Your task to perform on an android device: find photos in the google photos app Image 0: 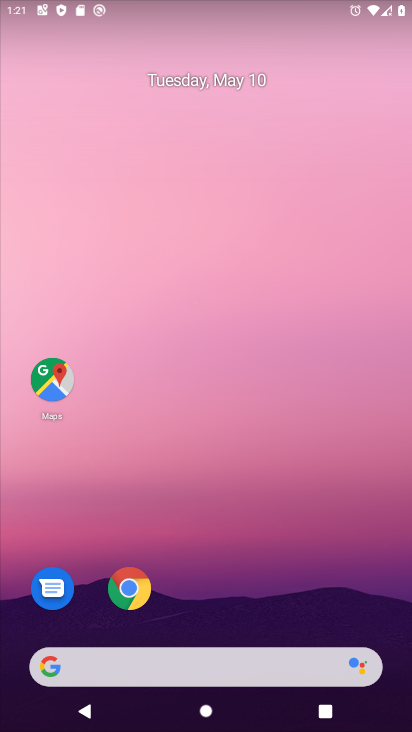
Step 0: drag from (238, 602) to (261, 170)
Your task to perform on an android device: find photos in the google photos app Image 1: 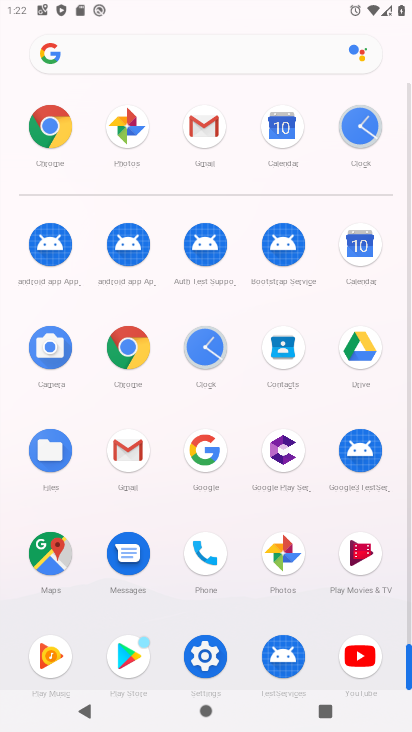
Step 1: click (271, 545)
Your task to perform on an android device: find photos in the google photos app Image 2: 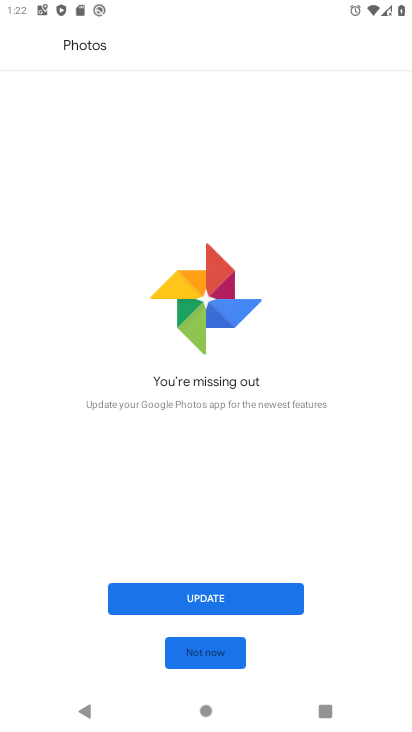
Step 2: click (204, 659)
Your task to perform on an android device: find photos in the google photos app Image 3: 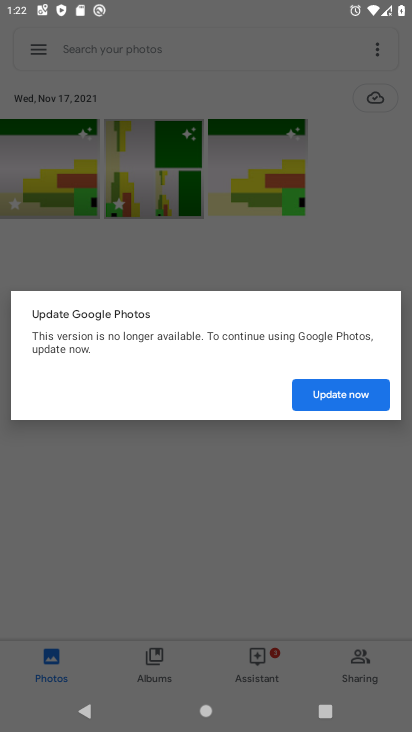
Step 3: click (338, 399)
Your task to perform on an android device: find photos in the google photos app Image 4: 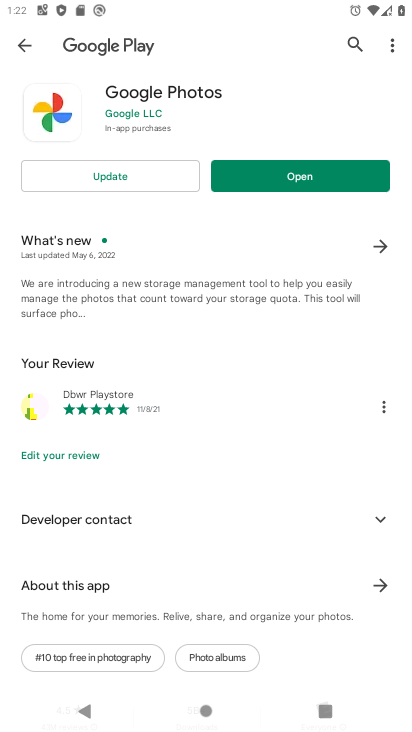
Step 4: press back button
Your task to perform on an android device: find photos in the google photos app Image 5: 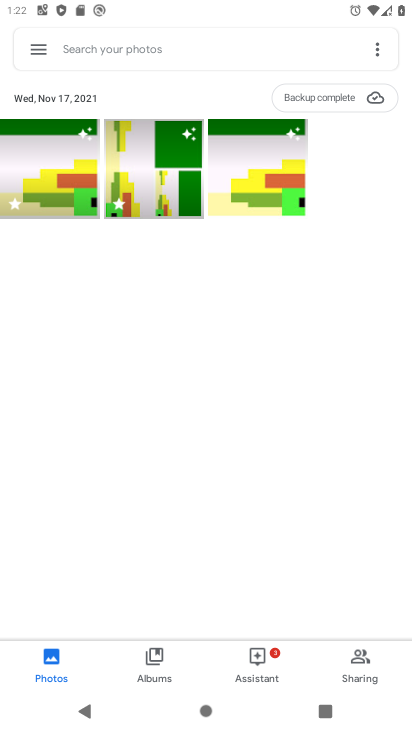
Step 5: click (39, 142)
Your task to perform on an android device: find photos in the google photos app Image 6: 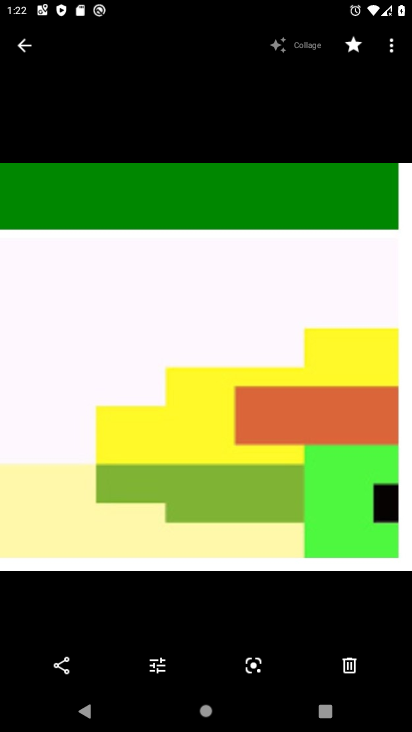
Step 6: task complete